Your task to perform on an android device: What is the news today? Image 0: 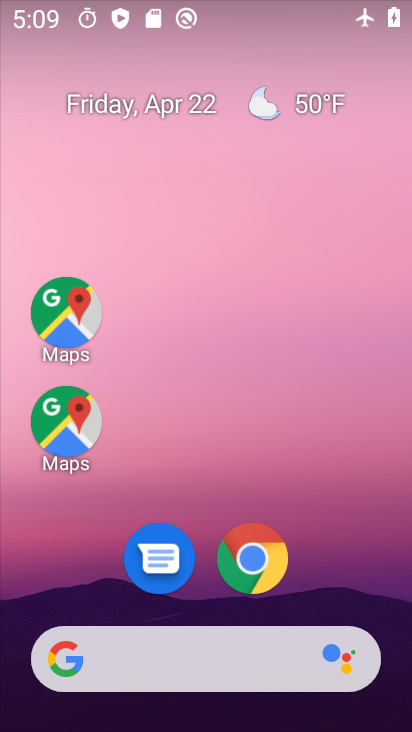
Step 0: drag from (347, 568) to (341, 186)
Your task to perform on an android device: What is the news today? Image 1: 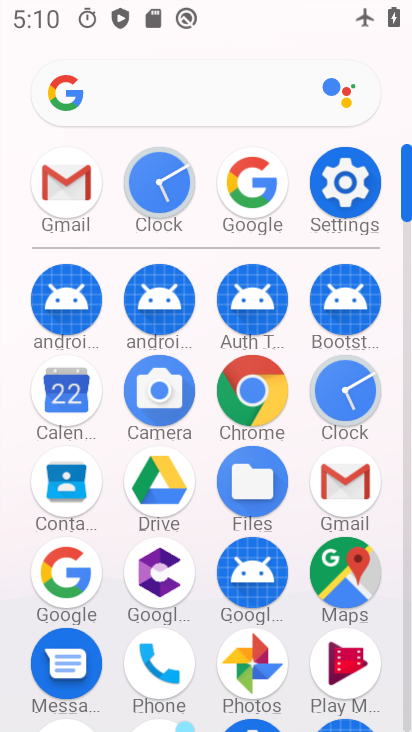
Step 1: click (231, 190)
Your task to perform on an android device: What is the news today? Image 2: 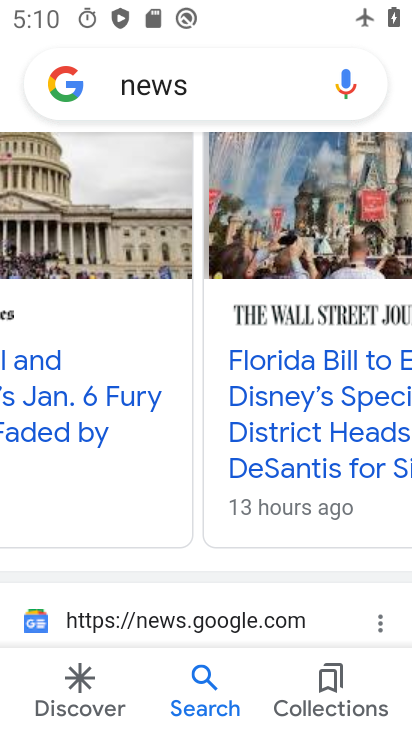
Step 2: task complete